Your task to perform on an android device: turn off sleep mode Image 0: 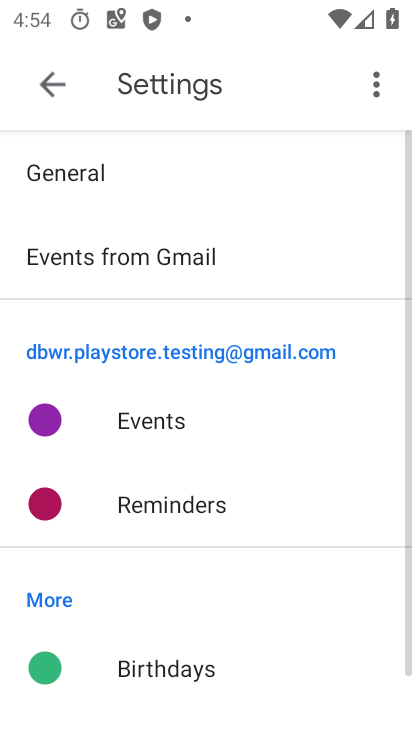
Step 0: press home button
Your task to perform on an android device: turn off sleep mode Image 1: 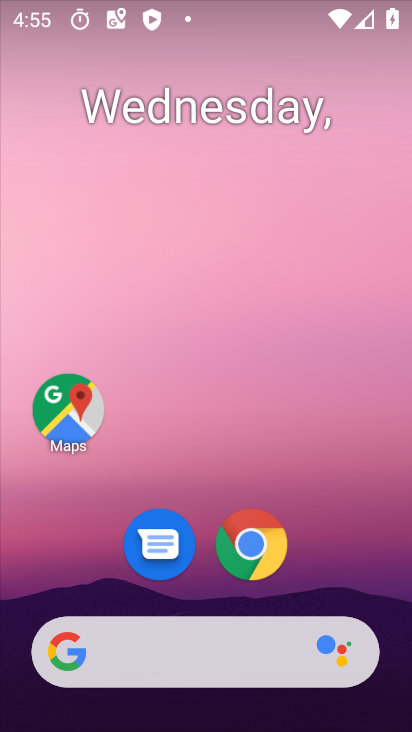
Step 1: drag from (195, 615) to (288, 17)
Your task to perform on an android device: turn off sleep mode Image 2: 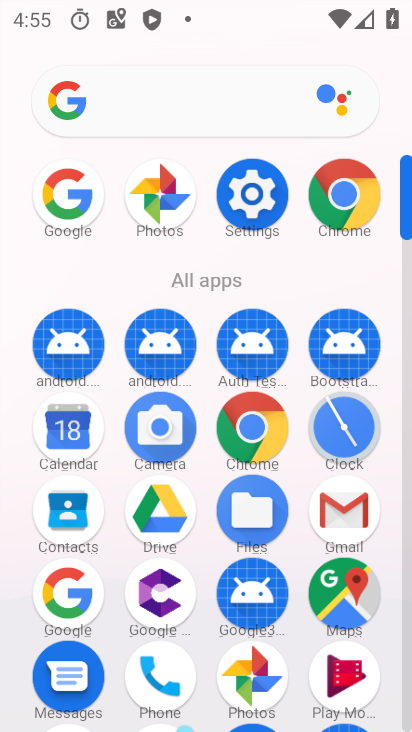
Step 2: click (250, 190)
Your task to perform on an android device: turn off sleep mode Image 3: 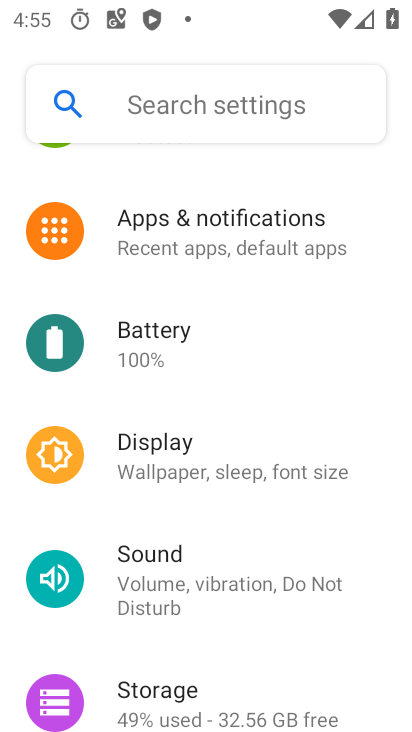
Step 3: task complete